Your task to perform on an android device: Clear the shopping cart on walmart. Add "razer naga" to the cart on walmart Image 0: 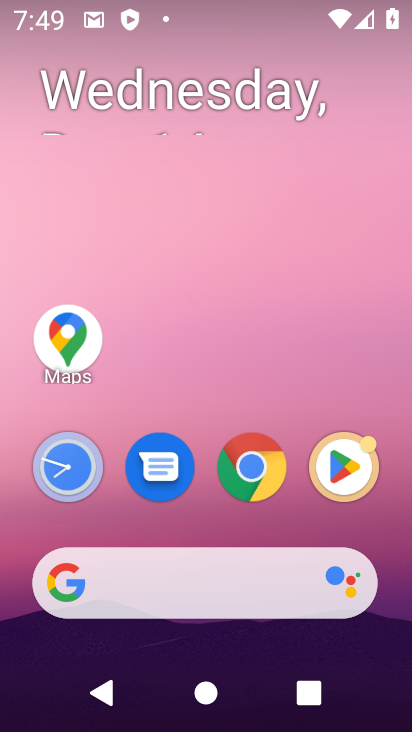
Step 0: click (267, 485)
Your task to perform on an android device: Clear the shopping cart on walmart. Add "razer naga" to the cart on walmart Image 1: 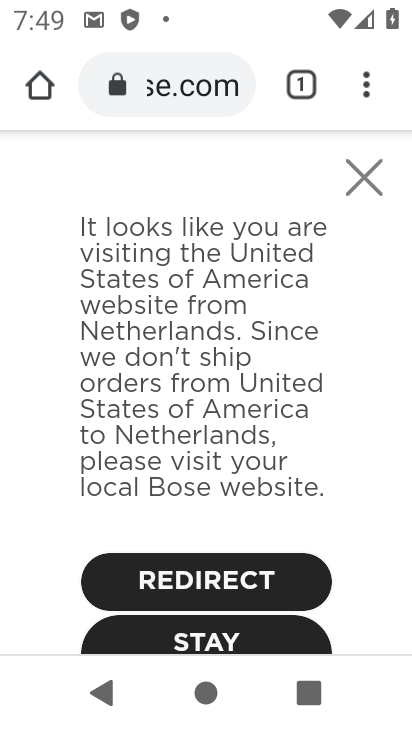
Step 1: click (171, 83)
Your task to perform on an android device: Clear the shopping cart on walmart. Add "razer naga" to the cart on walmart Image 2: 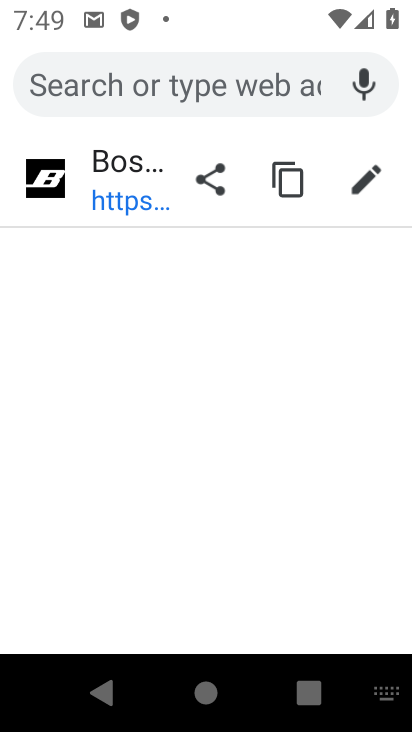
Step 2: type "walmart"
Your task to perform on an android device: Clear the shopping cart on walmart. Add "razer naga" to the cart on walmart Image 3: 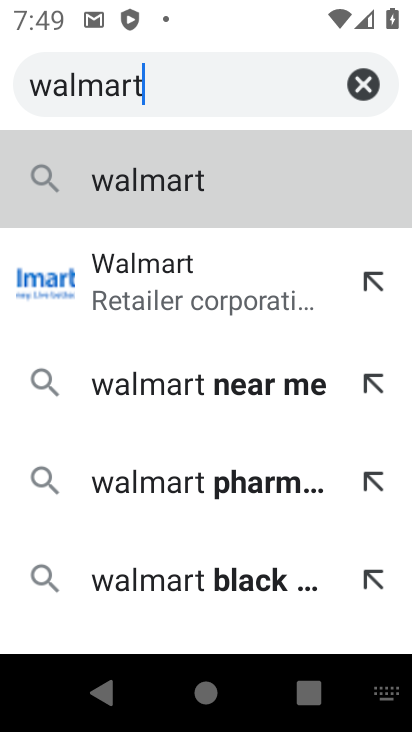
Step 3: click (179, 290)
Your task to perform on an android device: Clear the shopping cart on walmart. Add "razer naga" to the cart on walmart Image 4: 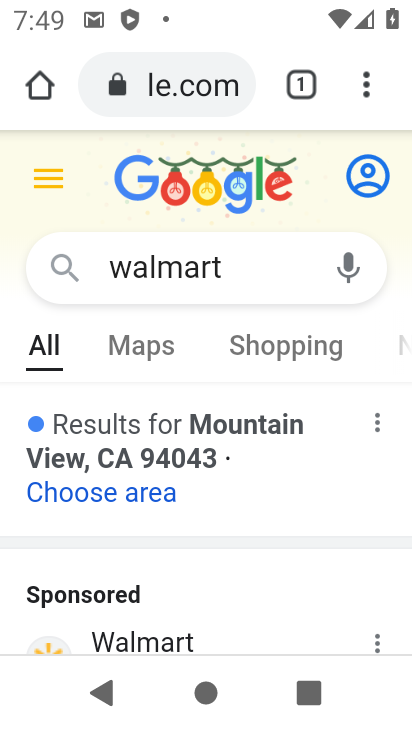
Step 4: click (124, 626)
Your task to perform on an android device: Clear the shopping cart on walmart. Add "razer naga" to the cart on walmart Image 5: 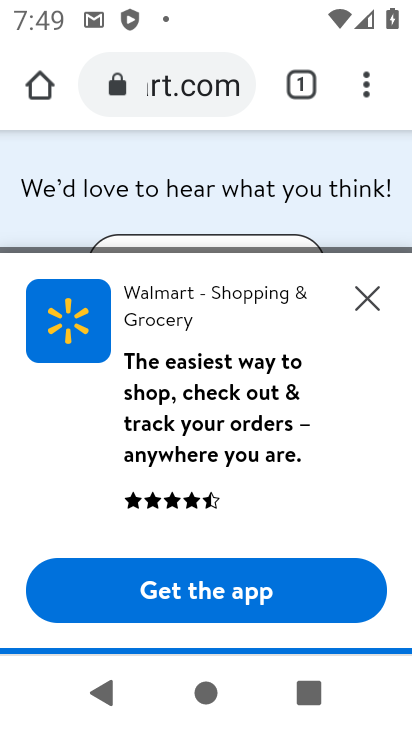
Step 5: click (387, 312)
Your task to perform on an android device: Clear the shopping cart on walmart. Add "razer naga" to the cart on walmart Image 6: 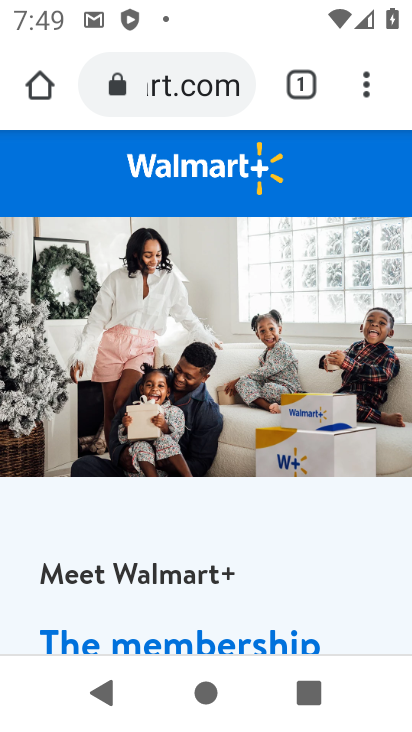
Step 6: task complete